Your task to perform on an android device: open device folders in google photos Image 0: 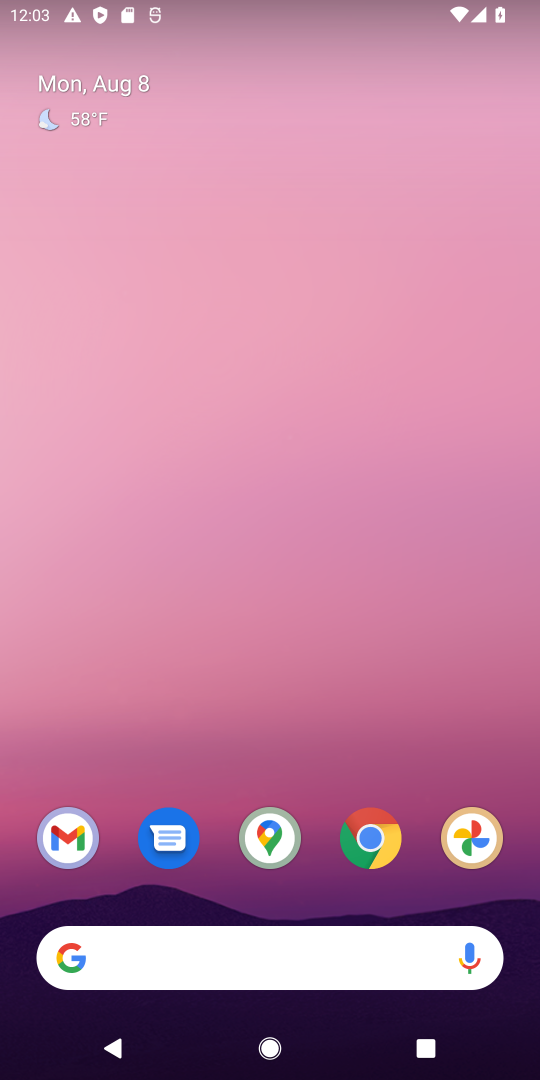
Step 0: press home button
Your task to perform on an android device: open device folders in google photos Image 1: 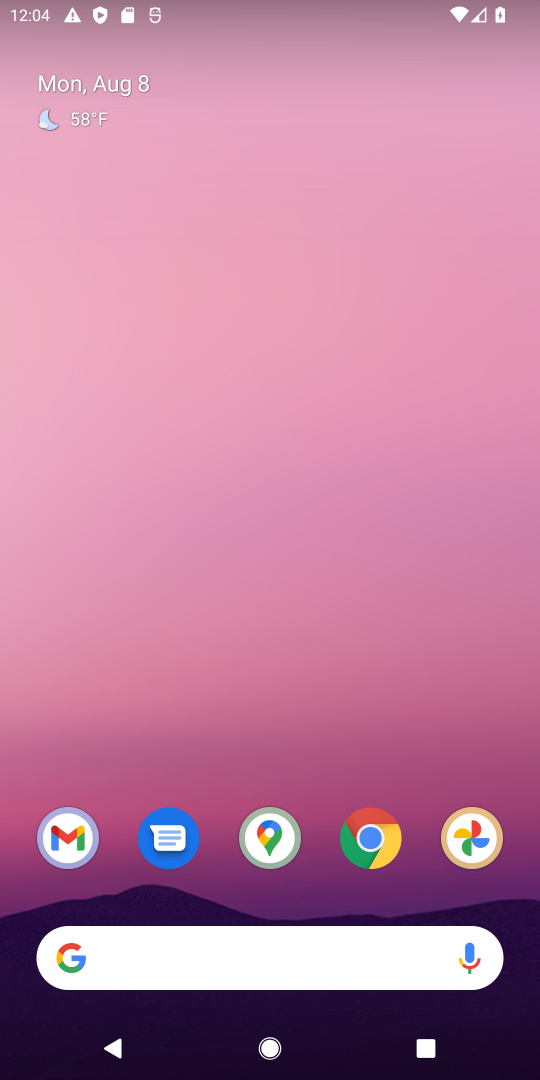
Step 1: drag from (313, 895) to (323, 99)
Your task to perform on an android device: open device folders in google photos Image 2: 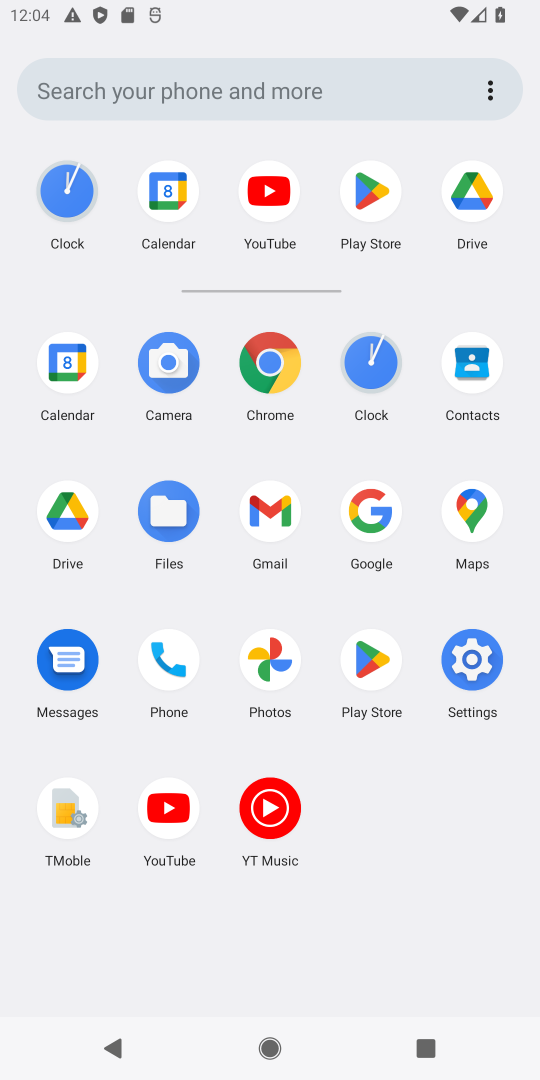
Step 2: click (255, 662)
Your task to perform on an android device: open device folders in google photos Image 3: 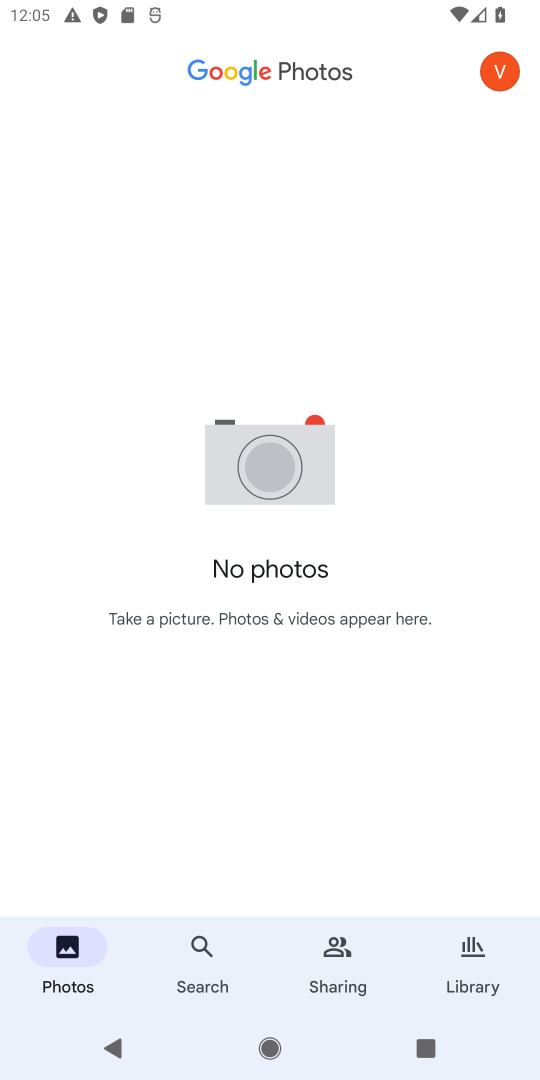
Step 3: task complete